Your task to perform on an android device: Go to eBay Image 0: 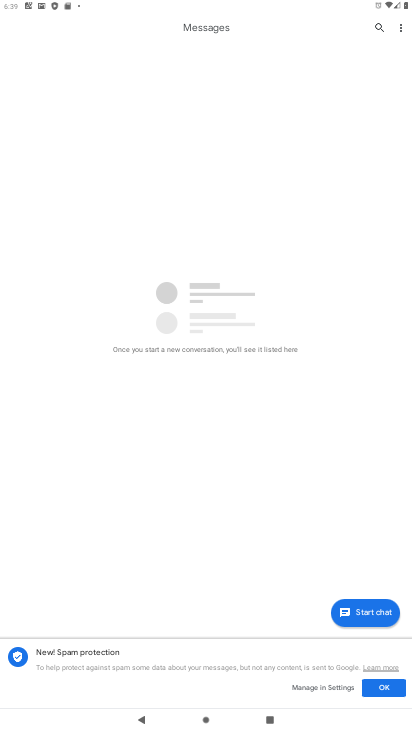
Step 0: press home button
Your task to perform on an android device: Go to eBay Image 1: 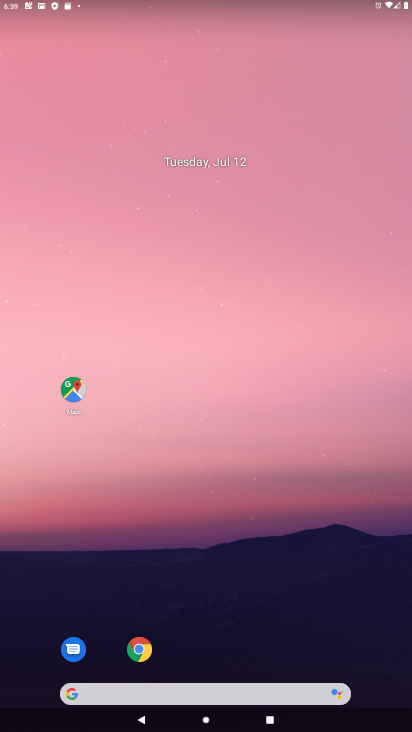
Step 1: click (140, 650)
Your task to perform on an android device: Go to eBay Image 2: 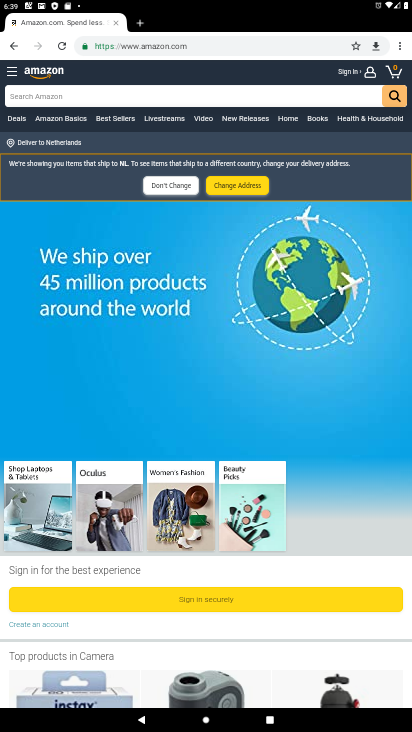
Step 2: click (258, 47)
Your task to perform on an android device: Go to eBay Image 3: 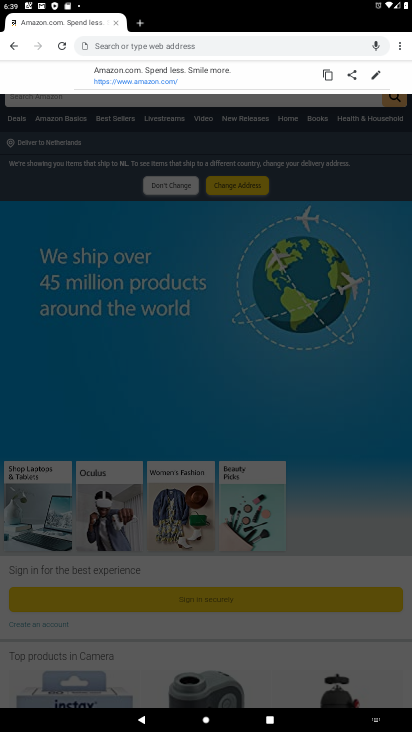
Step 3: type "eBay"
Your task to perform on an android device: Go to eBay Image 4: 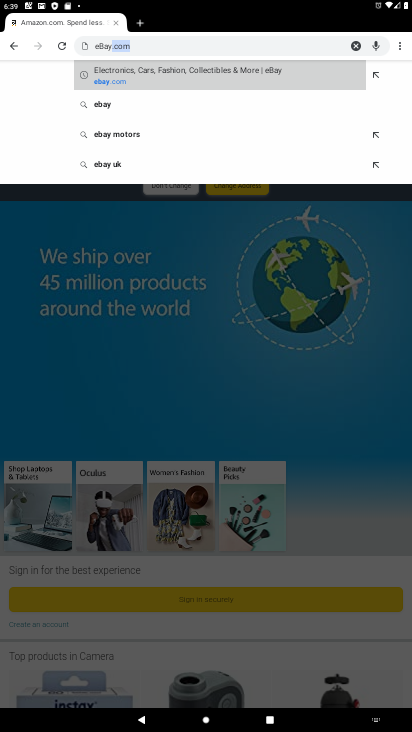
Step 4: click (104, 100)
Your task to perform on an android device: Go to eBay Image 5: 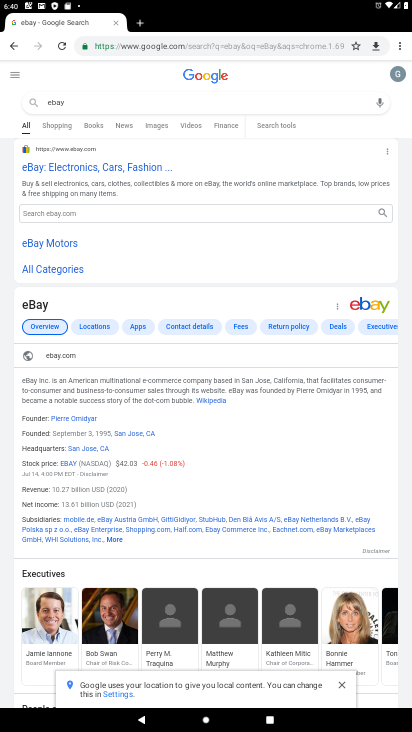
Step 5: click (91, 173)
Your task to perform on an android device: Go to eBay Image 6: 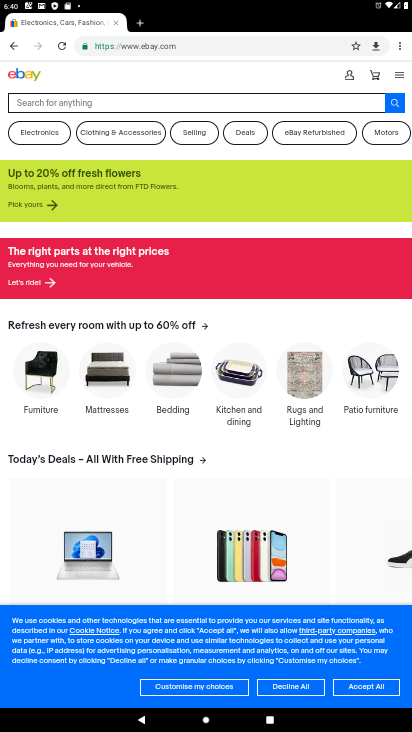
Step 6: task complete